Your task to perform on an android device: turn notification dots on Image 0: 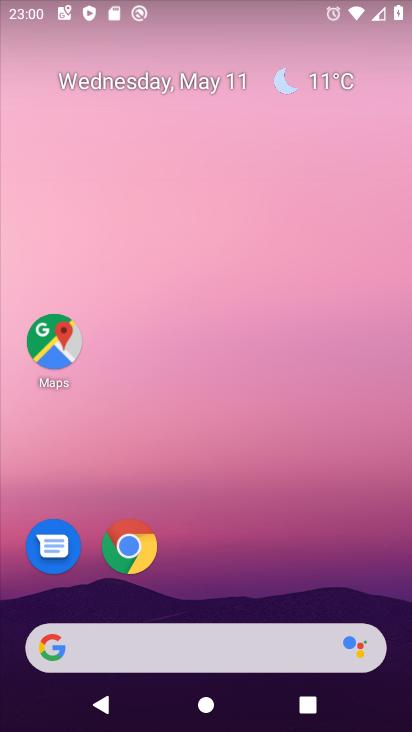
Step 0: drag from (397, 624) to (222, 54)
Your task to perform on an android device: turn notification dots on Image 1: 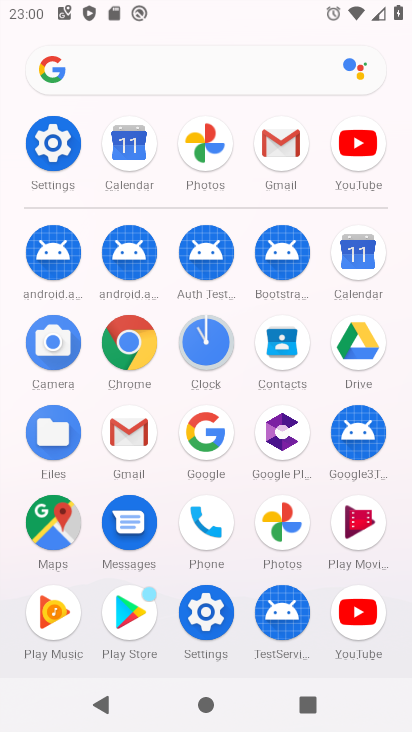
Step 1: click (206, 614)
Your task to perform on an android device: turn notification dots on Image 2: 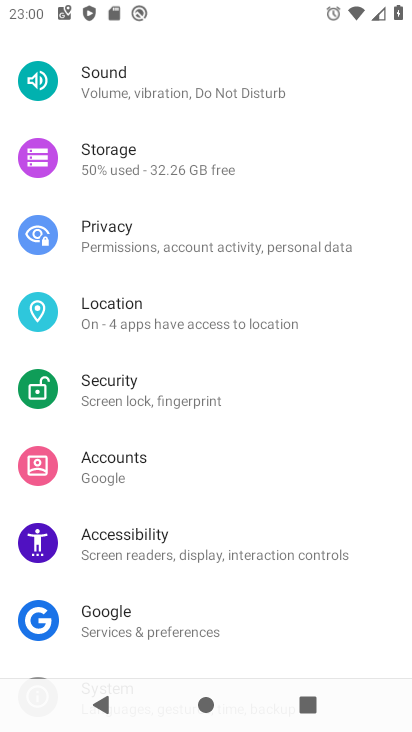
Step 2: drag from (378, 148) to (324, 417)
Your task to perform on an android device: turn notification dots on Image 3: 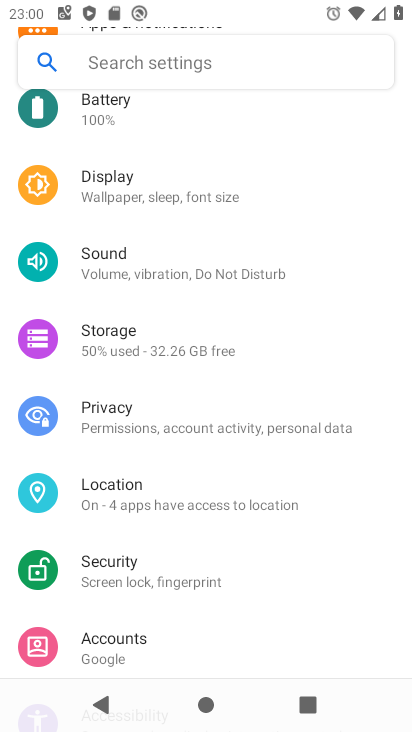
Step 3: drag from (329, 152) to (307, 445)
Your task to perform on an android device: turn notification dots on Image 4: 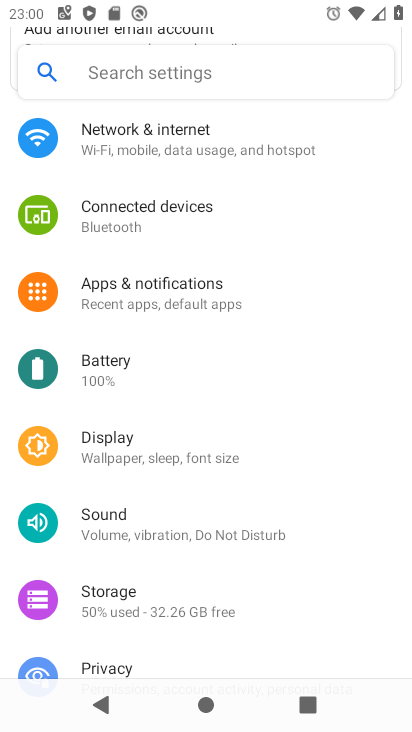
Step 4: click (130, 282)
Your task to perform on an android device: turn notification dots on Image 5: 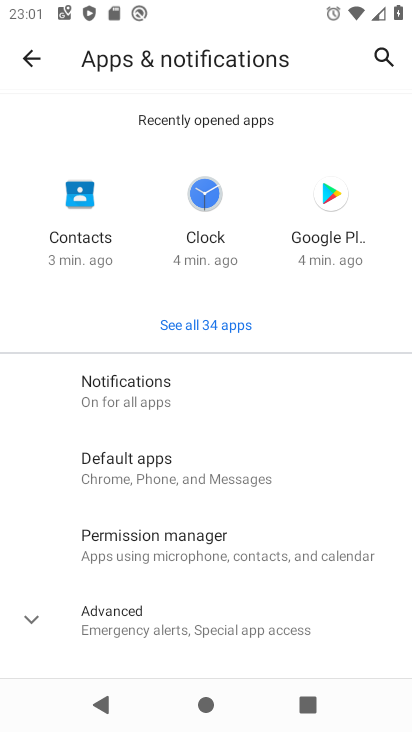
Step 5: click (151, 393)
Your task to perform on an android device: turn notification dots on Image 6: 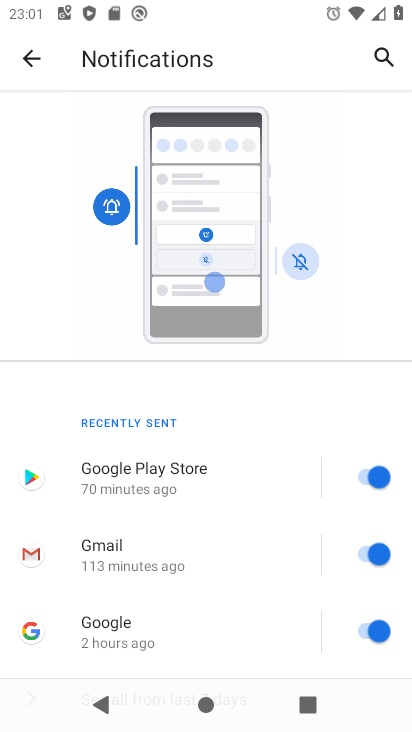
Step 6: drag from (313, 627) to (233, 202)
Your task to perform on an android device: turn notification dots on Image 7: 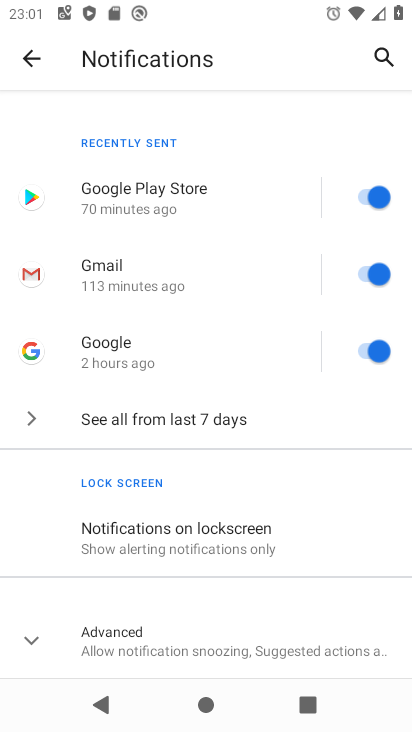
Step 7: click (44, 641)
Your task to perform on an android device: turn notification dots on Image 8: 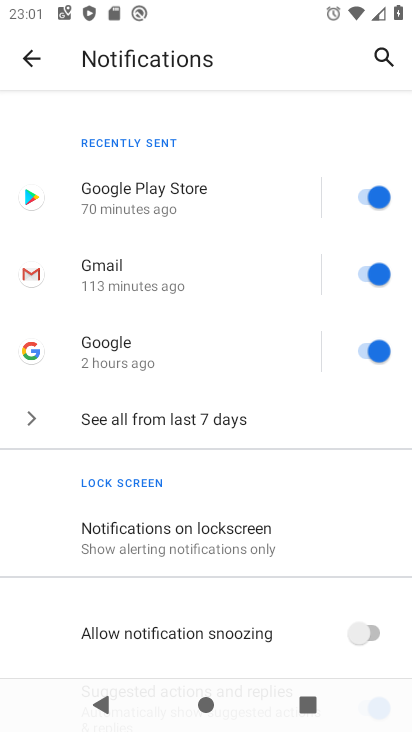
Step 8: task complete